Your task to perform on an android device: See recent photos Image 0: 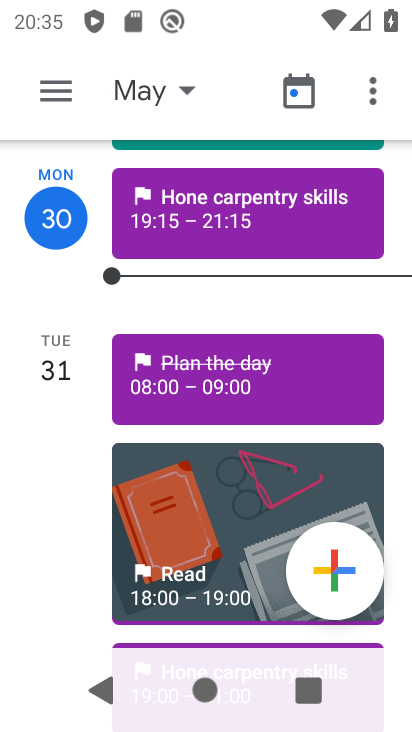
Step 0: press home button
Your task to perform on an android device: See recent photos Image 1: 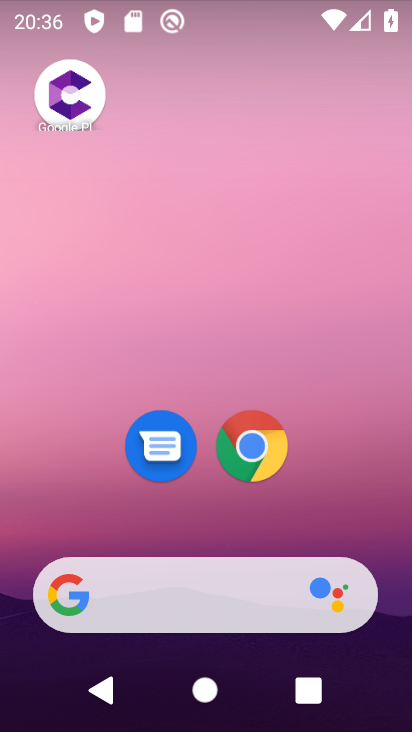
Step 1: drag from (299, 465) to (240, 140)
Your task to perform on an android device: See recent photos Image 2: 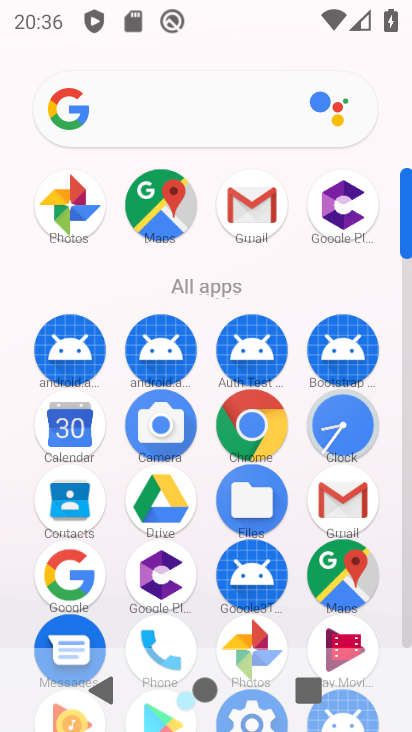
Step 2: click (270, 647)
Your task to perform on an android device: See recent photos Image 3: 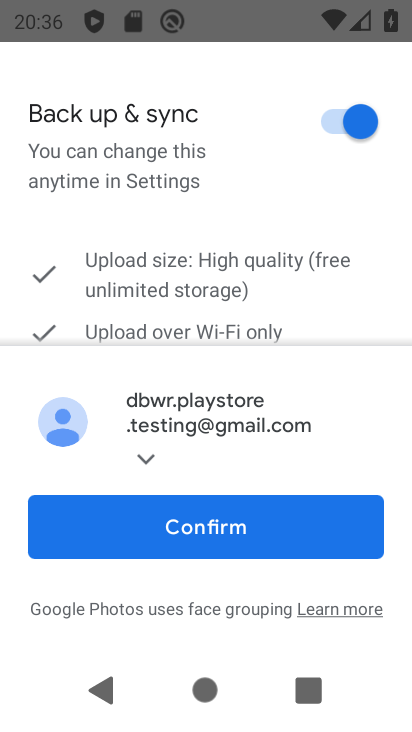
Step 3: click (265, 519)
Your task to perform on an android device: See recent photos Image 4: 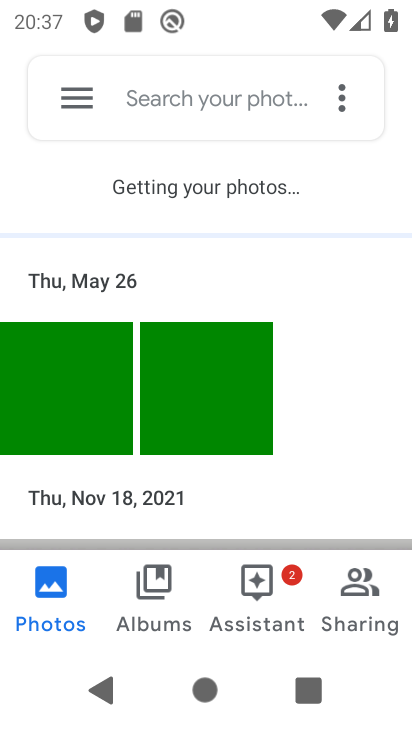
Step 4: task complete